Your task to perform on an android device: turn smart compose on in the gmail app Image 0: 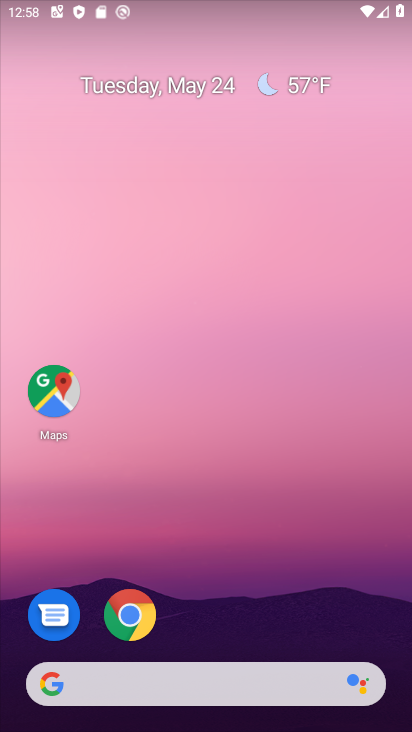
Step 0: drag from (209, 661) to (249, 111)
Your task to perform on an android device: turn smart compose on in the gmail app Image 1: 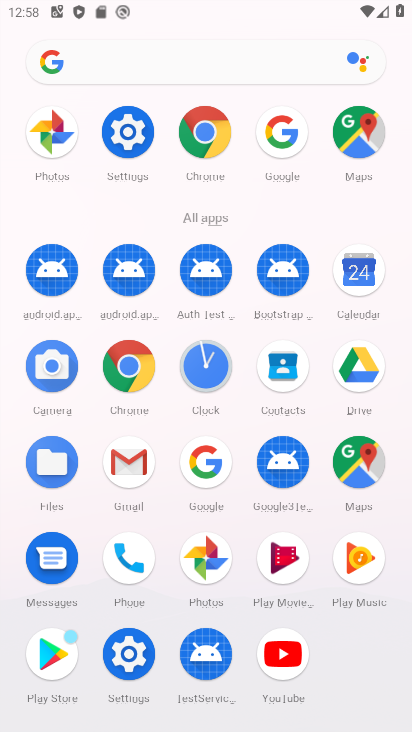
Step 1: click (130, 482)
Your task to perform on an android device: turn smart compose on in the gmail app Image 2: 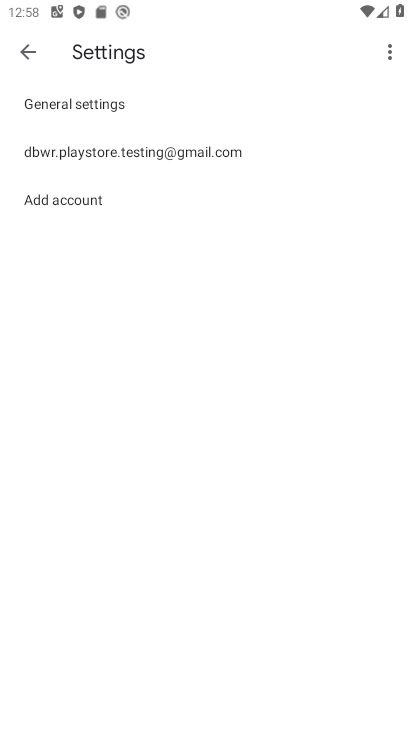
Step 2: click (165, 150)
Your task to perform on an android device: turn smart compose on in the gmail app Image 3: 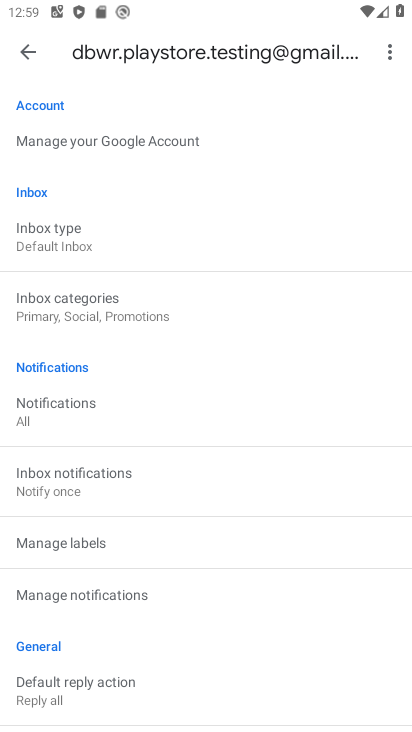
Step 3: task complete